Your task to perform on an android device: uninstall "Indeed Job Search" Image 0: 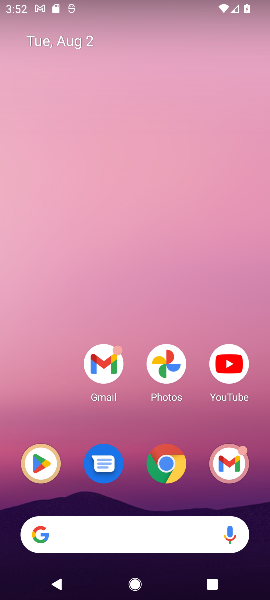
Step 0: click (40, 462)
Your task to perform on an android device: uninstall "Indeed Job Search" Image 1: 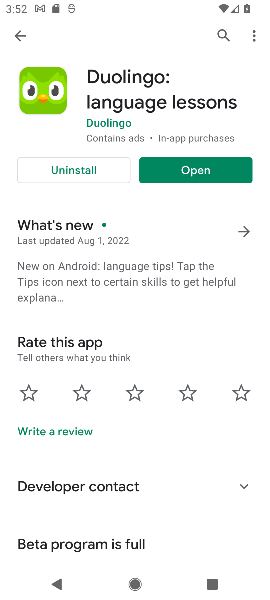
Step 1: click (225, 31)
Your task to perform on an android device: uninstall "Indeed Job Search" Image 2: 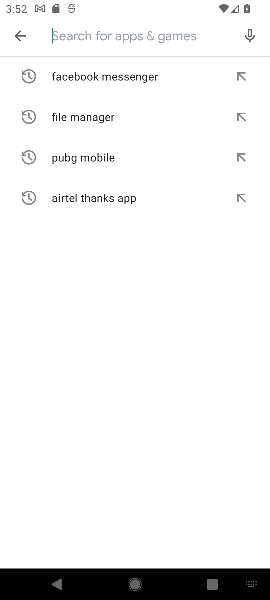
Step 2: type "Indeed Job Search"
Your task to perform on an android device: uninstall "Indeed Job Search" Image 3: 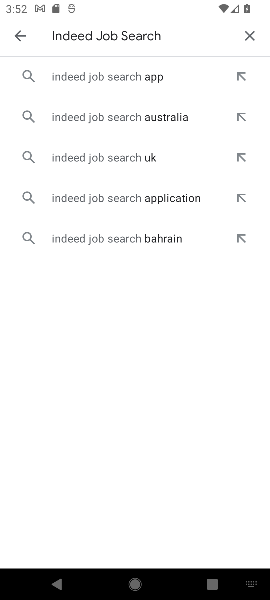
Step 3: click (106, 81)
Your task to perform on an android device: uninstall "Indeed Job Search" Image 4: 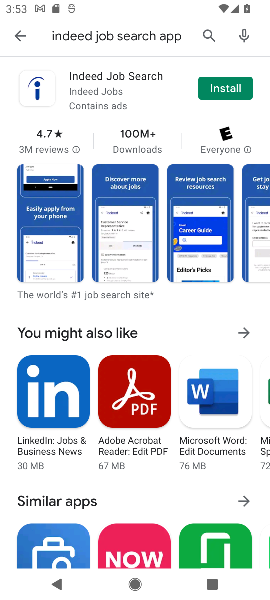
Step 4: task complete